Your task to perform on an android device: Open the phone app and click the voicemail tab. Image 0: 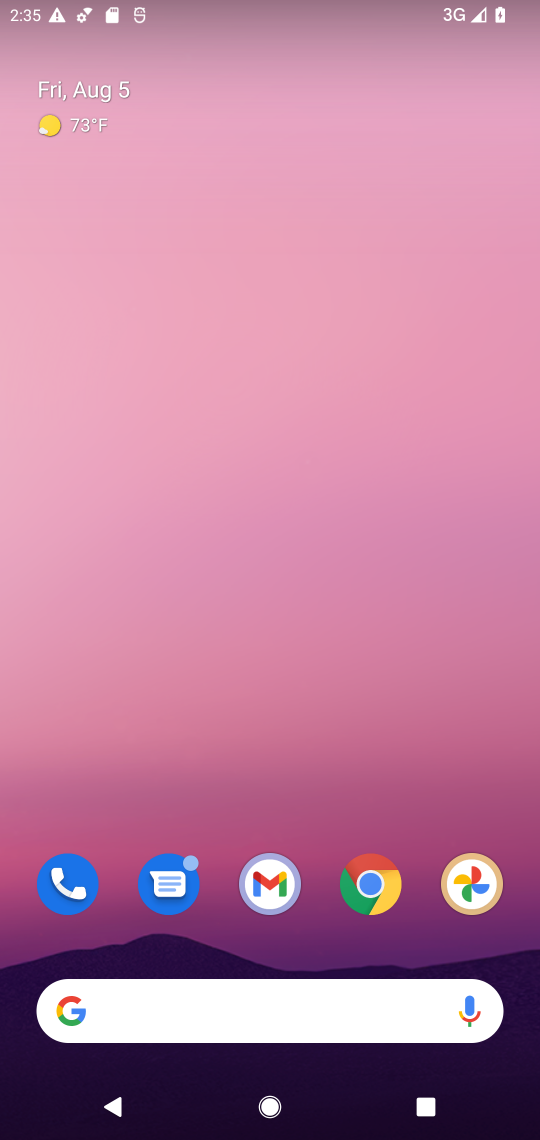
Step 0: drag from (407, 897) to (308, 226)
Your task to perform on an android device: Open the phone app and click the voicemail tab. Image 1: 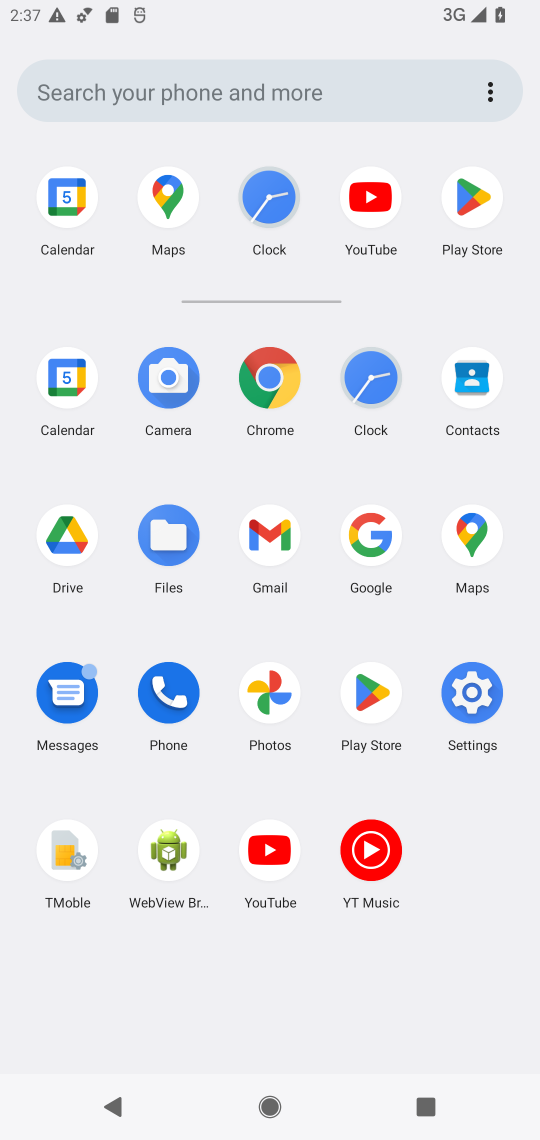
Step 1: click (176, 700)
Your task to perform on an android device: Open the phone app and click the voicemail tab. Image 2: 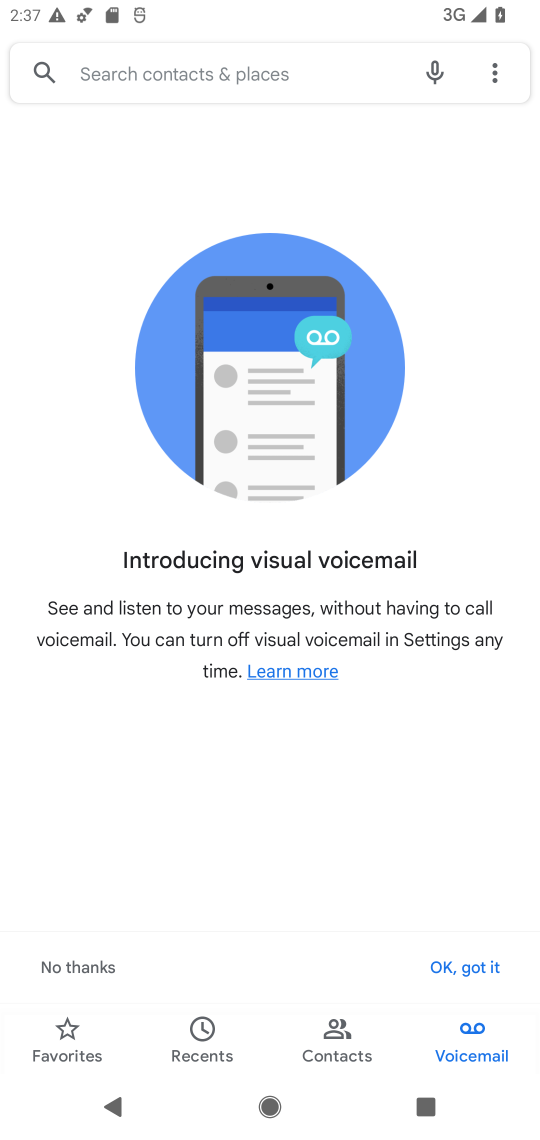
Step 2: task complete